Your task to perform on an android device: Open notification settings Image 0: 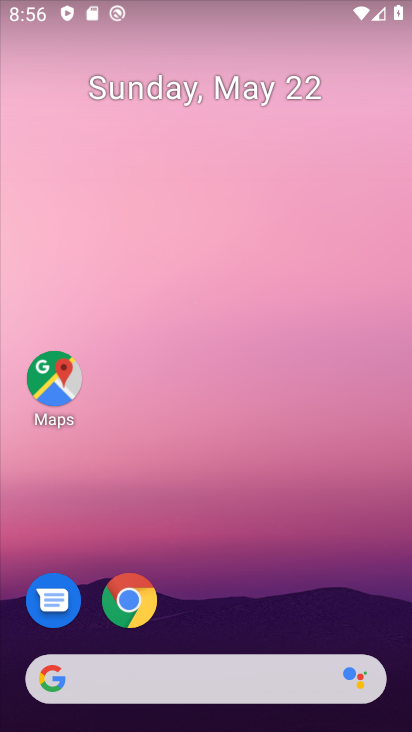
Step 0: drag from (236, 618) to (225, 178)
Your task to perform on an android device: Open notification settings Image 1: 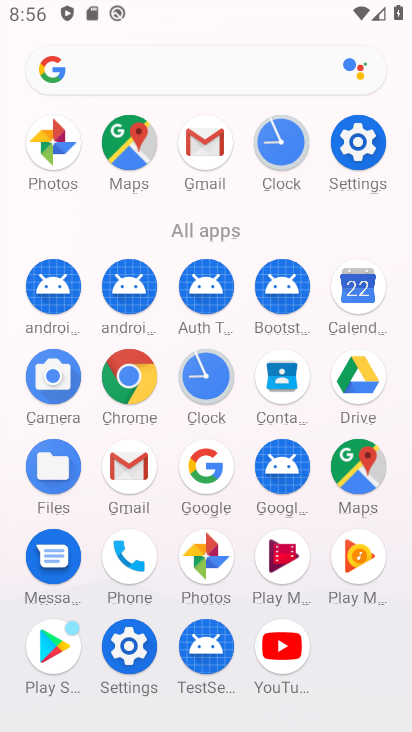
Step 1: click (355, 148)
Your task to perform on an android device: Open notification settings Image 2: 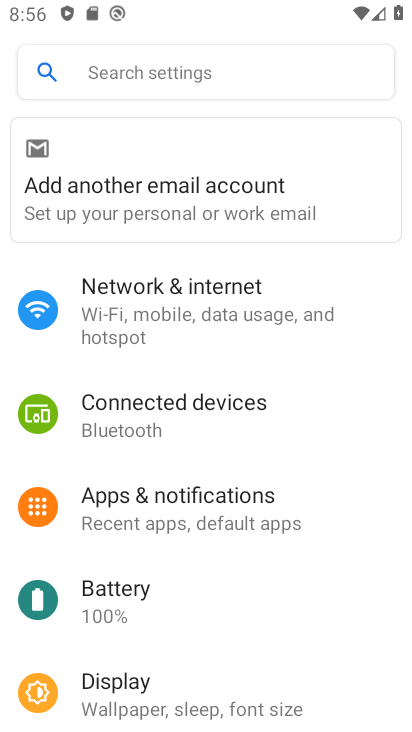
Step 2: click (198, 502)
Your task to perform on an android device: Open notification settings Image 3: 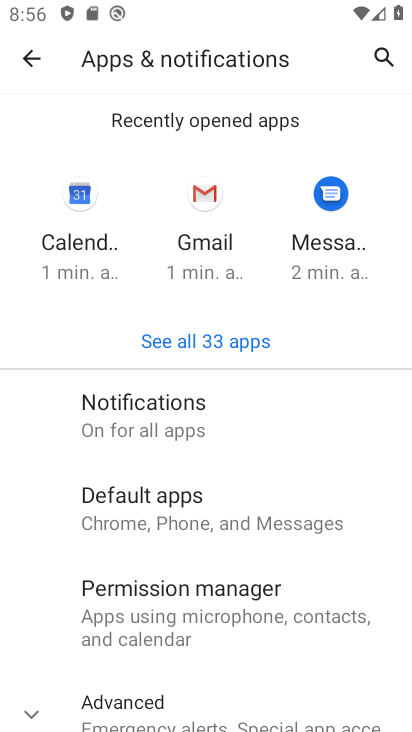
Step 3: click (183, 407)
Your task to perform on an android device: Open notification settings Image 4: 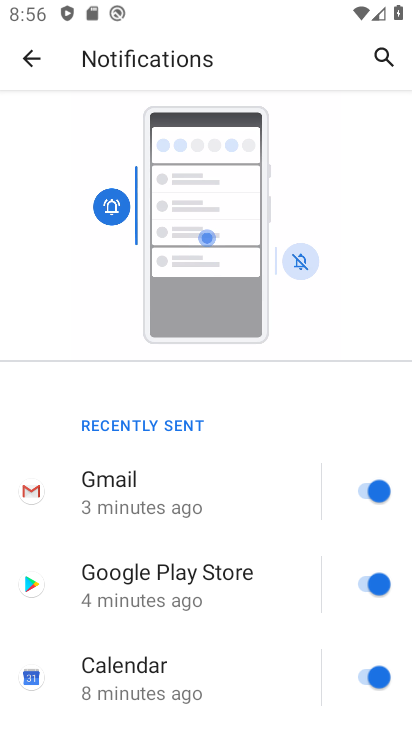
Step 4: task complete